Your task to perform on an android device: turn off airplane mode Image 0: 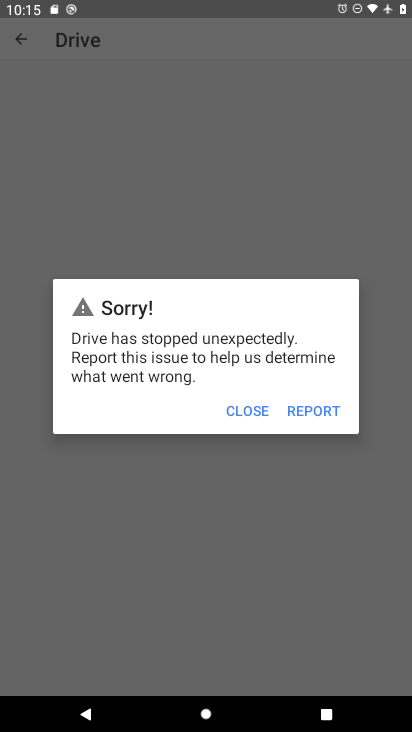
Step 0: press home button
Your task to perform on an android device: turn off airplane mode Image 1: 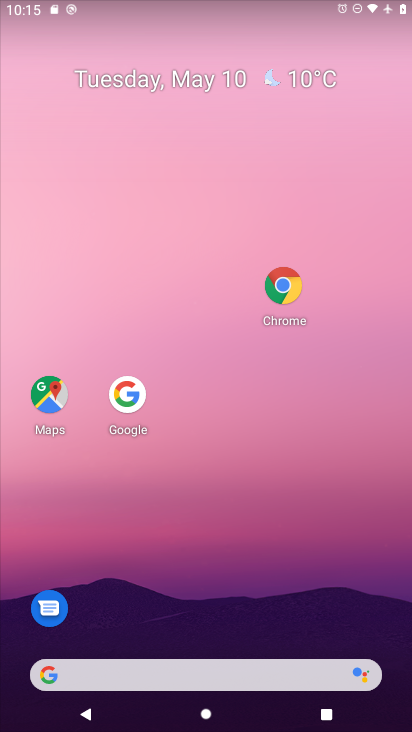
Step 1: drag from (209, 678) to (320, 109)
Your task to perform on an android device: turn off airplane mode Image 2: 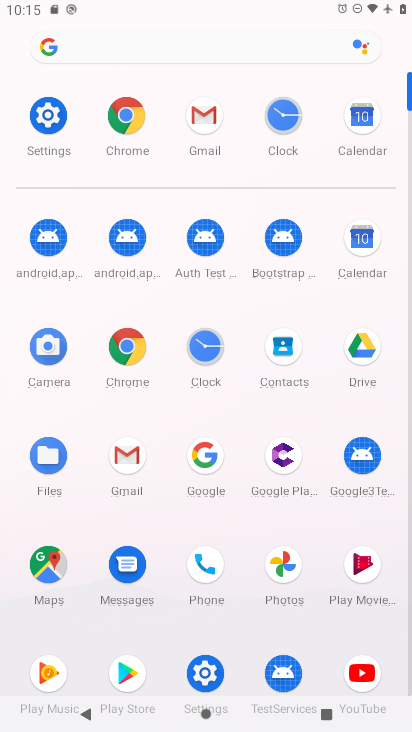
Step 2: click (42, 114)
Your task to perform on an android device: turn off airplane mode Image 3: 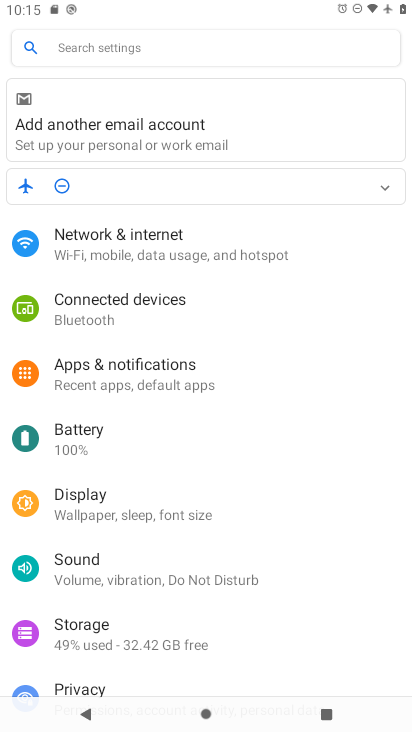
Step 3: click (156, 252)
Your task to perform on an android device: turn off airplane mode Image 4: 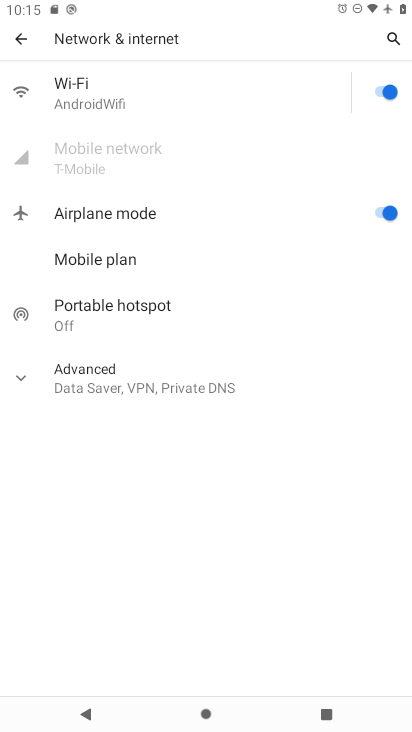
Step 4: click (379, 211)
Your task to perform on an android device: turn off airplane mode Image 5: 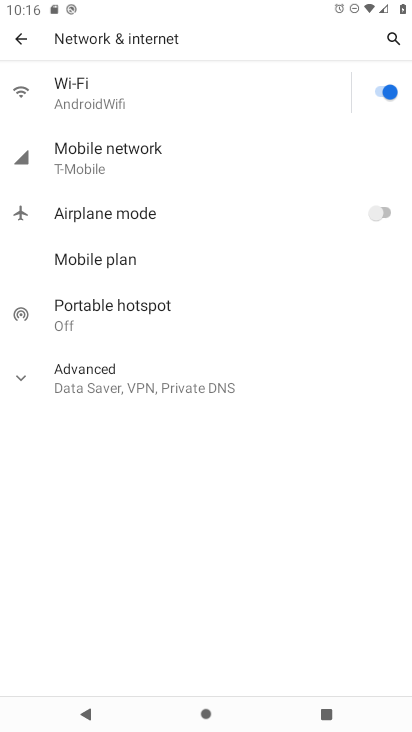
Step 5: task complete